Your task to perform on an android device: Open Android settings Image 0: 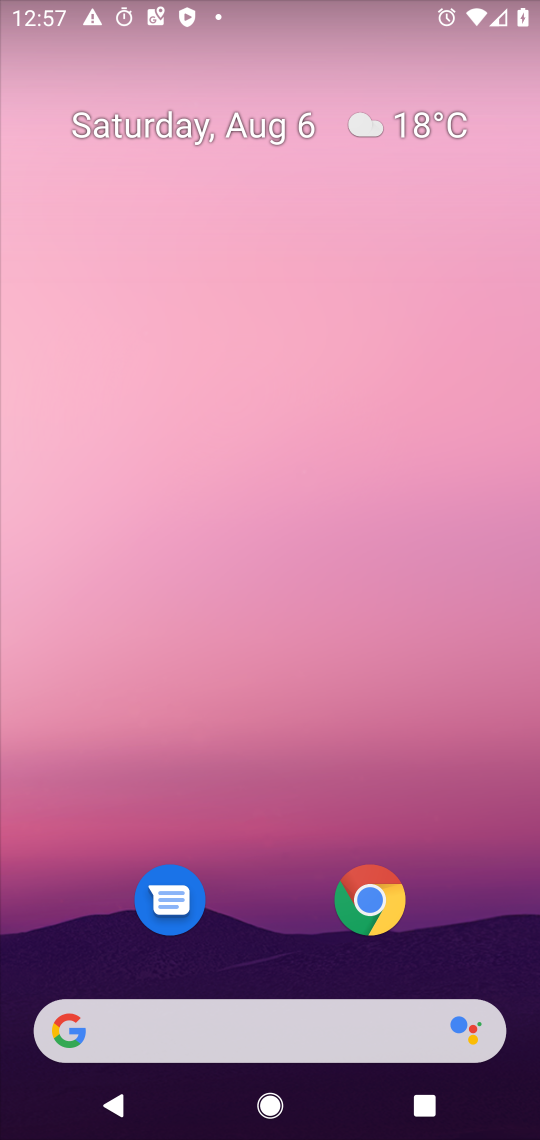
Step 0: drag from (312, 896) to (258, 52)
Your task to perform on an android device: Open Android settings Image 1: 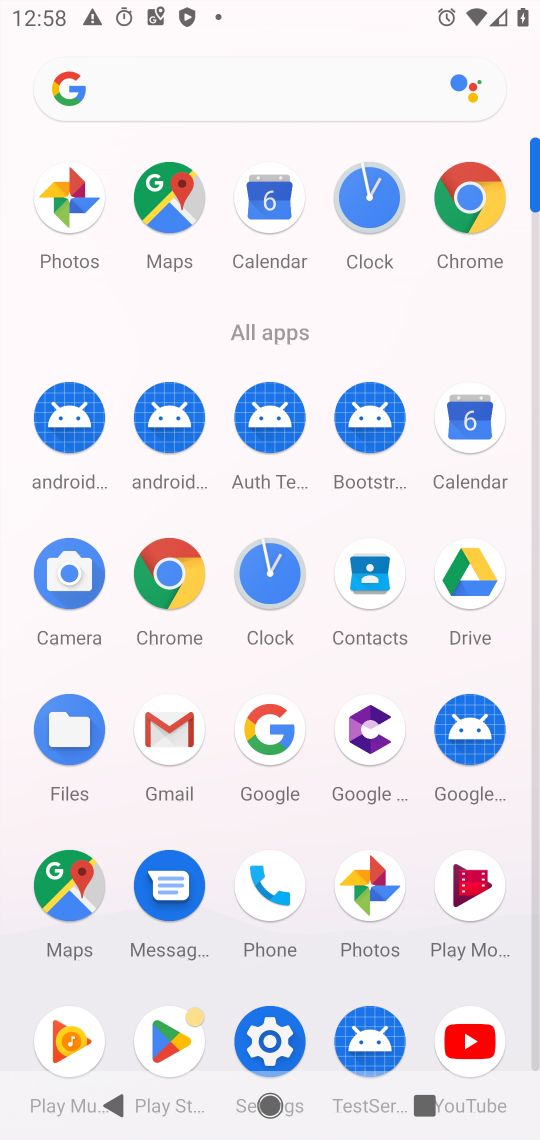
Step 1: click (272, 1021)
Your task to perform on an android device: Open Android settings Image 2: 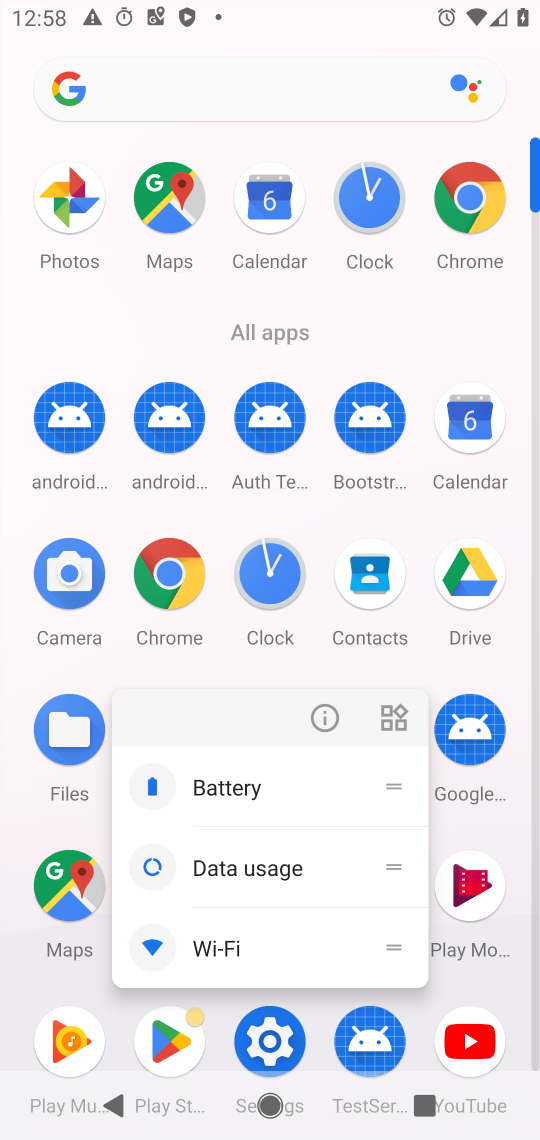
Step 2: task complete